Your task to perform on an android device: search for starred emails in the gmail app Image 0: 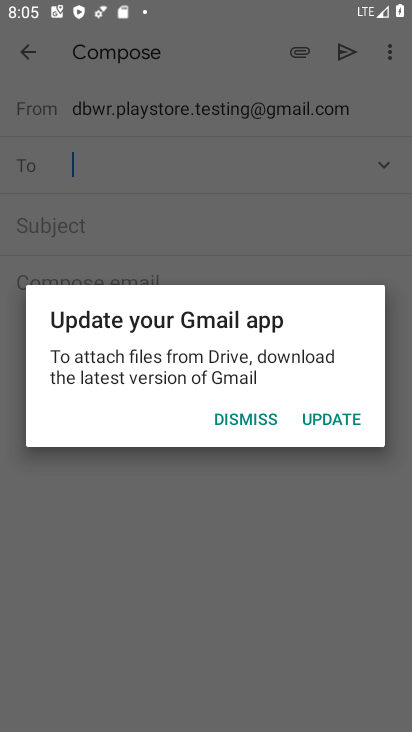
Step 0: press home button
Your task to perform on an android device: search for starred emails in the gmail app Image 1: 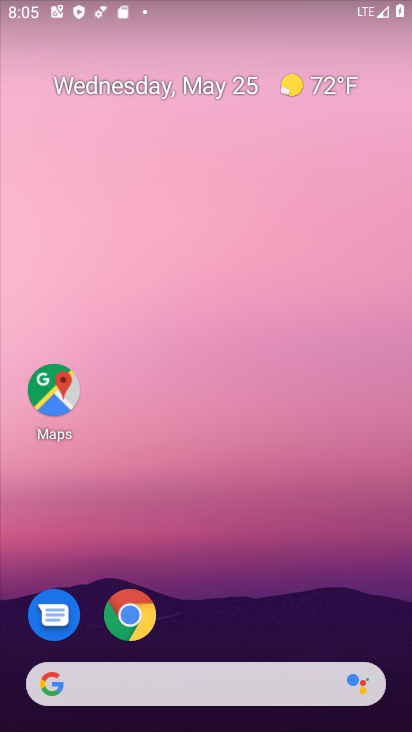
Step 1: drag from (259, 538) to (280, 34)
Your task to perform on an android device: search for starred emails in the gmail app Image 2: 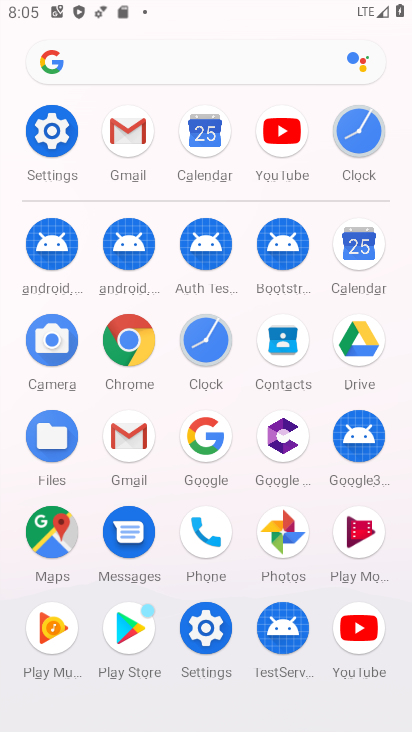
Step 2: click (133, 142)
Your task to perform on an android device: search for starred emails in the gmail app Image 3: 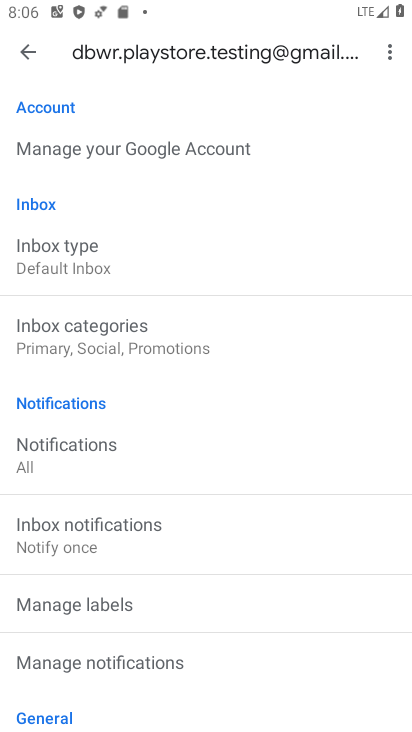
Step 3: click (28, 52)
Your task to perform on an android device: search for starred emails in the gmail app Image 4: 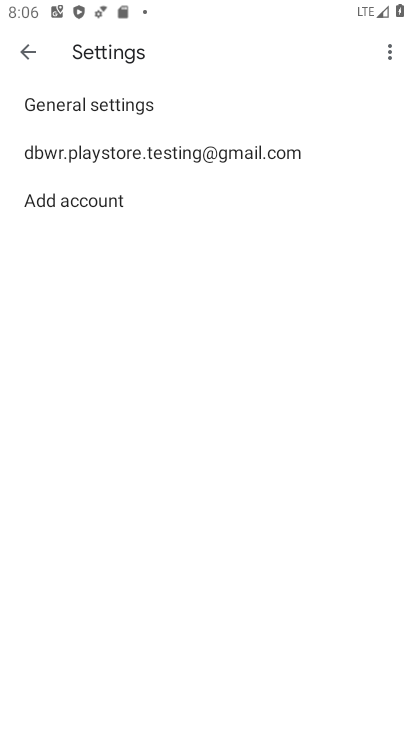
Step 4: click (28, 52)
Your task to perform on an android device: search for starred emails in the gmail app Image 5: 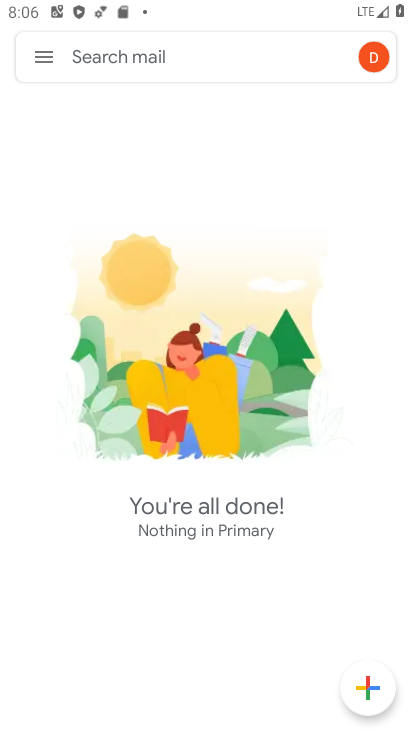
Step 5: click (35, 55)
Your task to perform on an android device: search for starred emails in the gmail app Image 6: 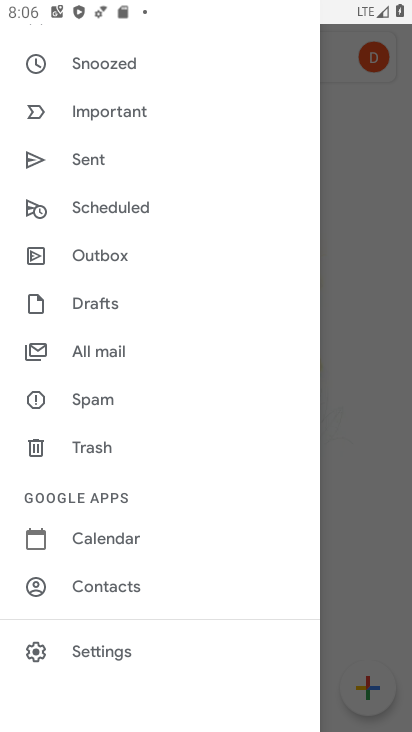
Step 6: drag from (153, 200) to (177, 471)
Your task to perform on an android device: search for starred emails in the gmail app Image 7: 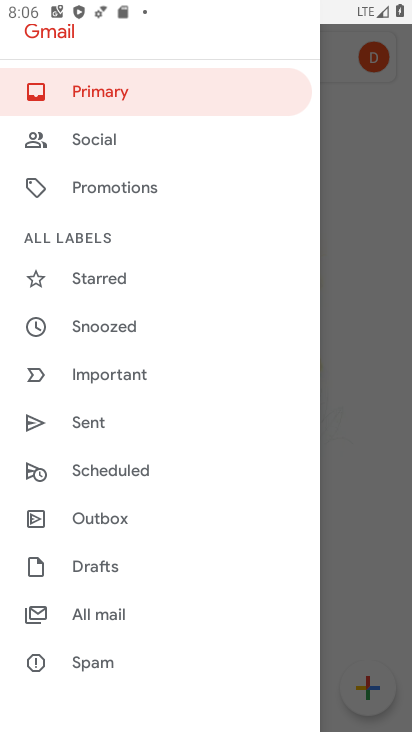
Step 7: click (155, 266)
Your task to perform on an android device: search for starred emails in the gmail app Image 8: 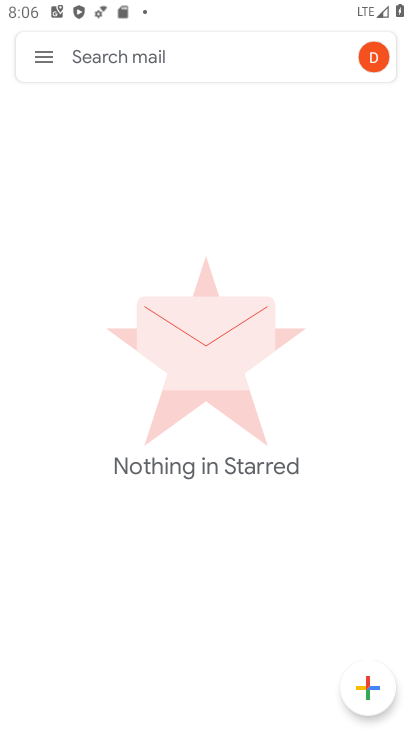
Step 8: task complete